Your task to perform on an android device: delete location history Image 0: 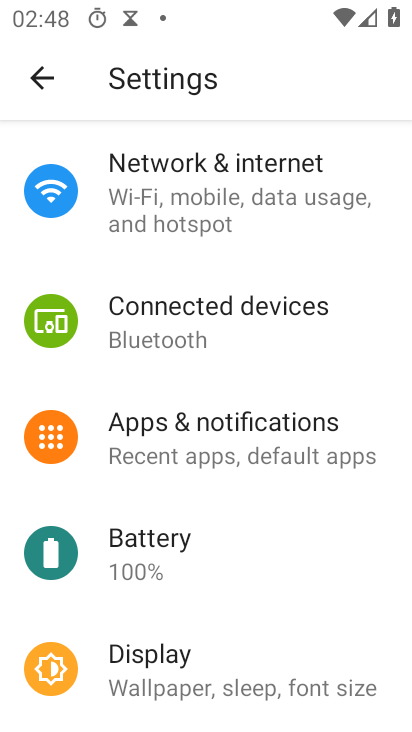
Step 0: press home button
Your task to perform on an android device: delete location history Image 1: 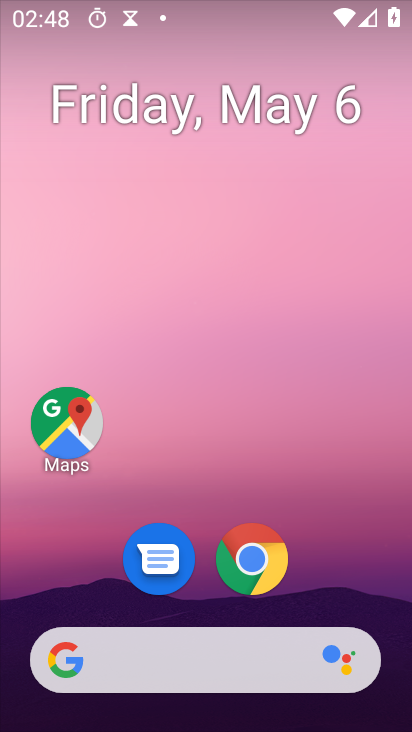
Step 1: drag from (312, 628) to (277, 7)
Your task to perform on an android device: delete location history Image 2: 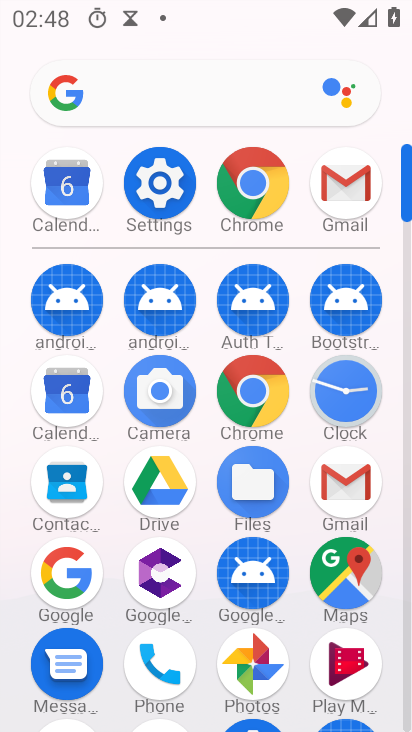
Step 2: click (332, 583)
Your task to perform on an android device: delete location history Image 3: 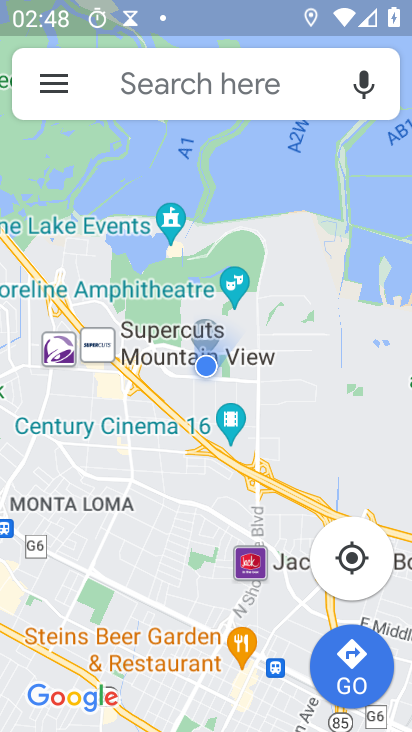
Step 3: drag from (51, 75) to (72, 249)
Your task to perform on an android device: delete location history Image 4: 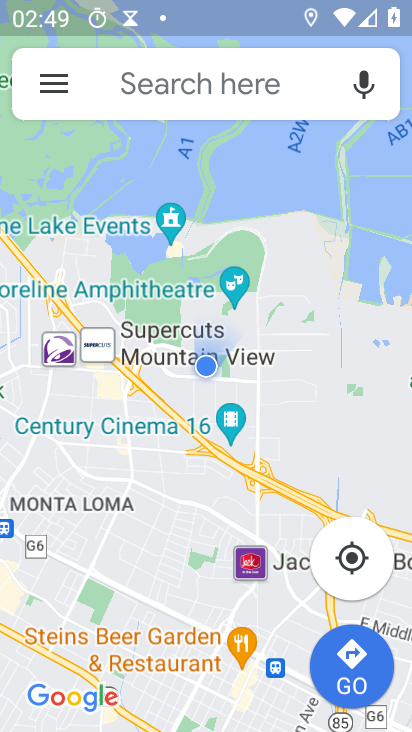
Step 4: click (42, 76)
Your task to perform on an android device: delete location history Image 5: 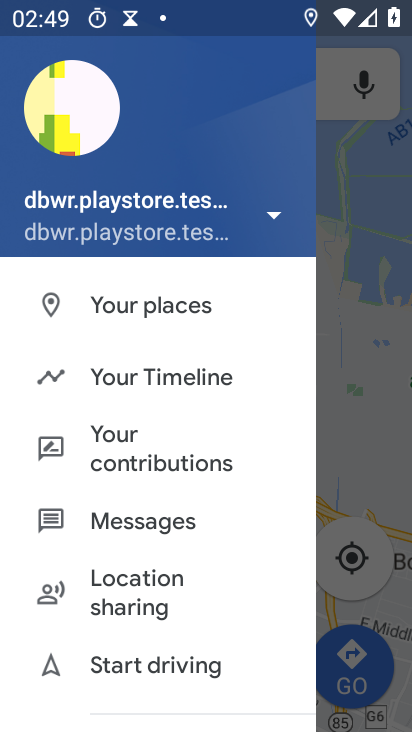
Step 5: click (177, 385)
Your task to perform on an android device: delete location history Image 6: 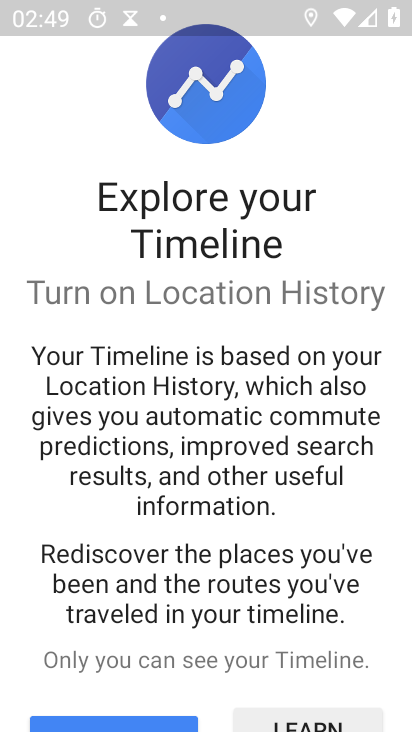
Step 6: drag from (274, 654) to (341, 209)
Your task to perform on an android device: delete location history Image 7: 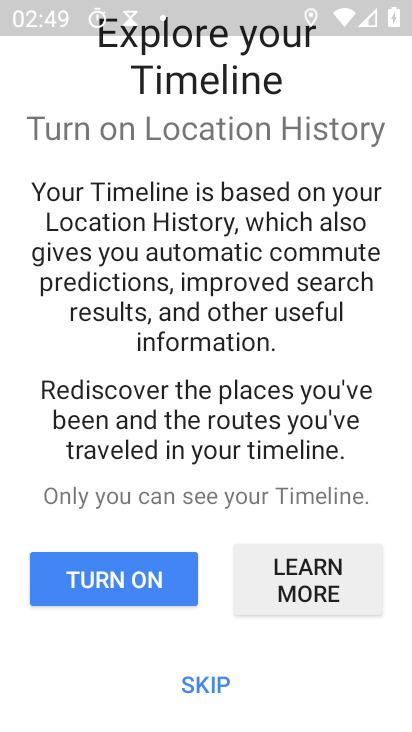
Step 7: click (213, 683)
Your task to perform on an android device: delete location history Image 8: 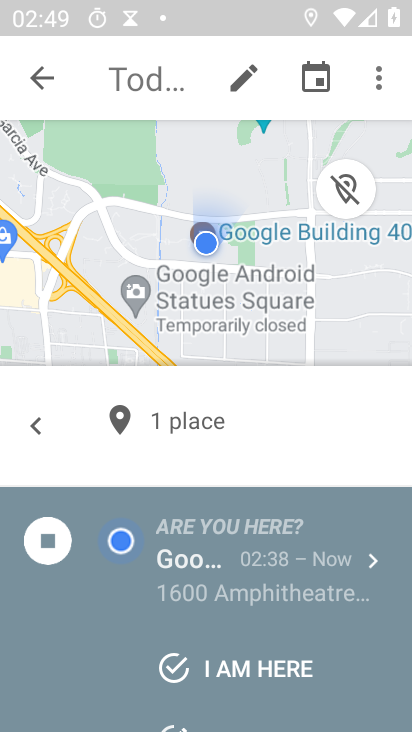
Step 8: click (382, 77)
Your task to perform on an android device: delete location history Image 9: 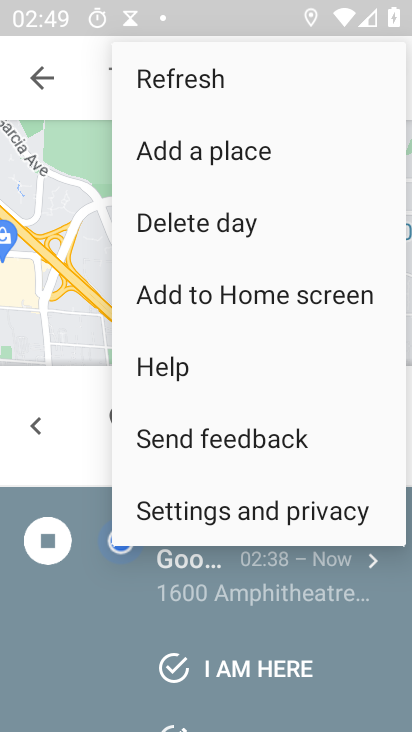
Step 9: click (268, 508)
Your task to perform on an android device: delete location history Image 10: 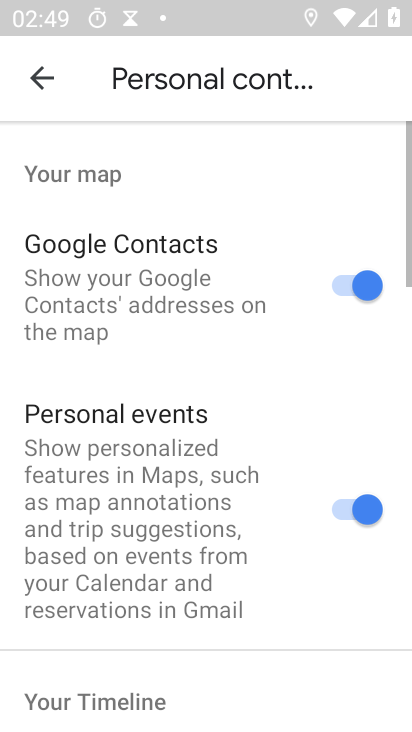
Step 10: drag from (272, 695) to (271, 85)
Your task to perform on an android device: delete location history Image 11: 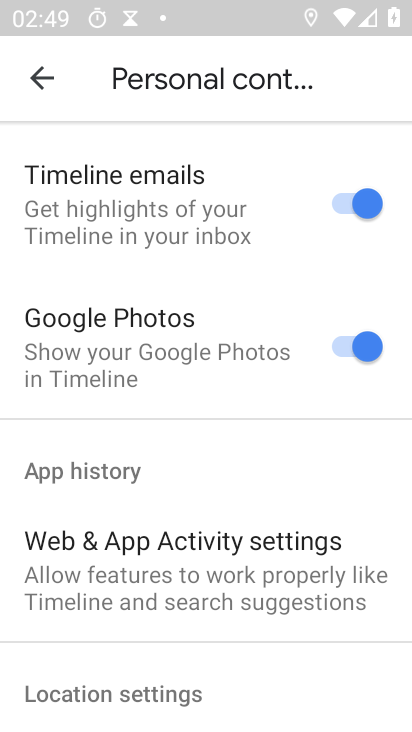
Step 11: drag from (232, 685) to (252, 142)
Your task to perform on an android device: delete location history Image 12: 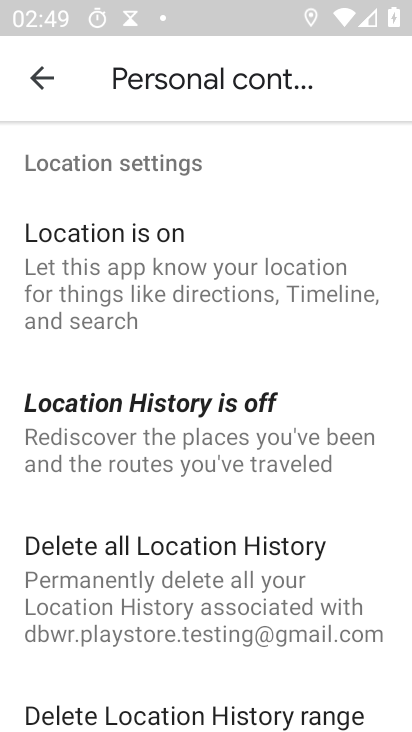
Step 12: click (281, 617)
Your task to perform on an android device: delete location history Image 13: 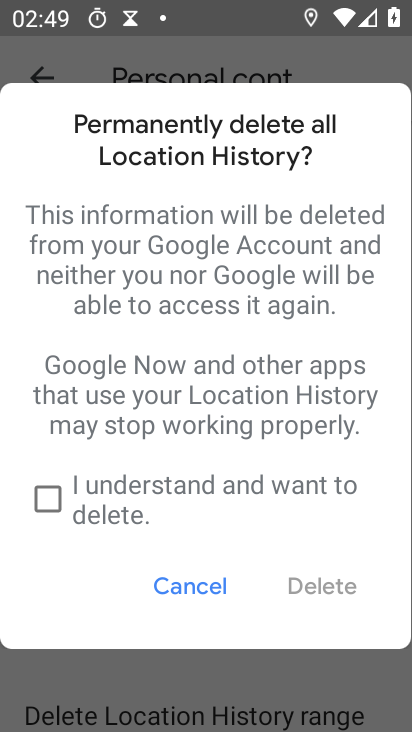
Step 13: click (47, 492)
Your task to perform on an android device: delete location history Image 14: 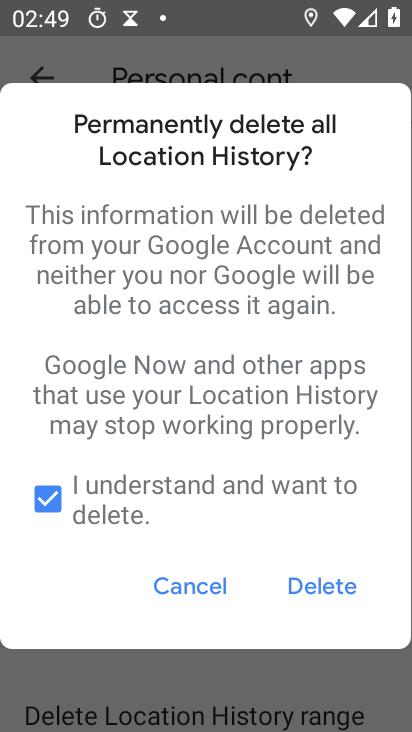
Step 14: click (320, 587)
Your task to perform on an android device: delete location history Image 15: 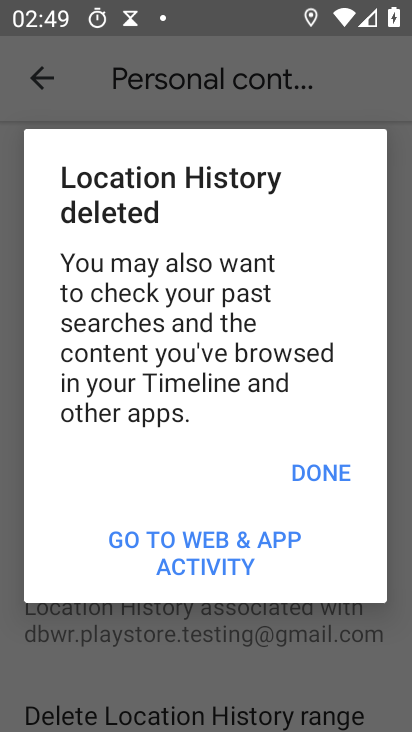
Step 15: click (330, 482)
Your task to perform on an android device: delete location history Image 16: 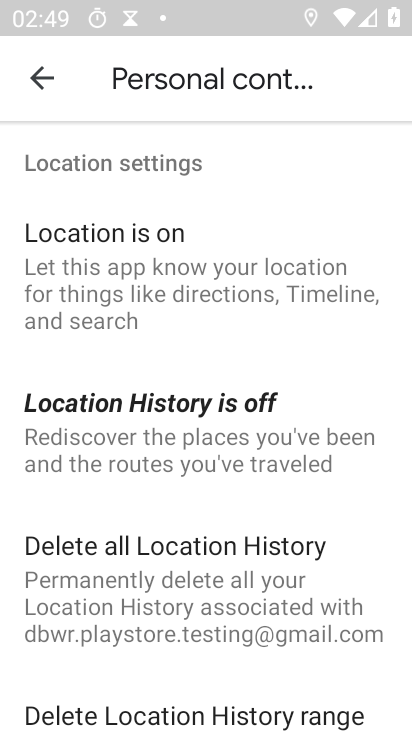
Step 16: task complete